Your task to perform on an android device: install app "Microsoft Authenticator" Image 0: 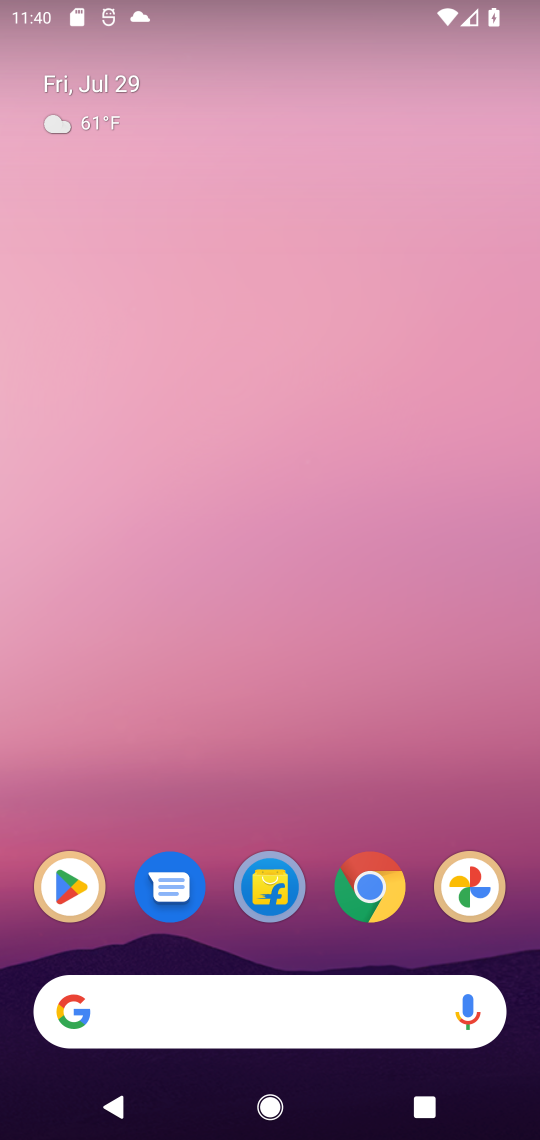
Step 0: drag from (224, 1009) to (334, 213)
Your task to perform on an android device: install app "Microsoft Authenticator" Image 1: 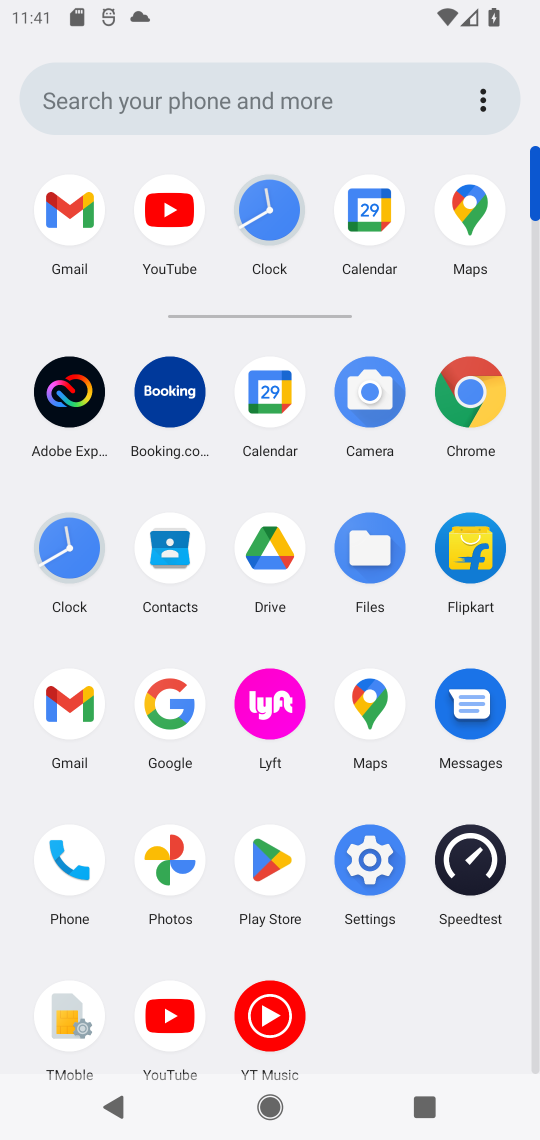
Step 1: click (272, 857)
Your task to perform on an android device: install app "Microsoft Authenticator" Image 2: 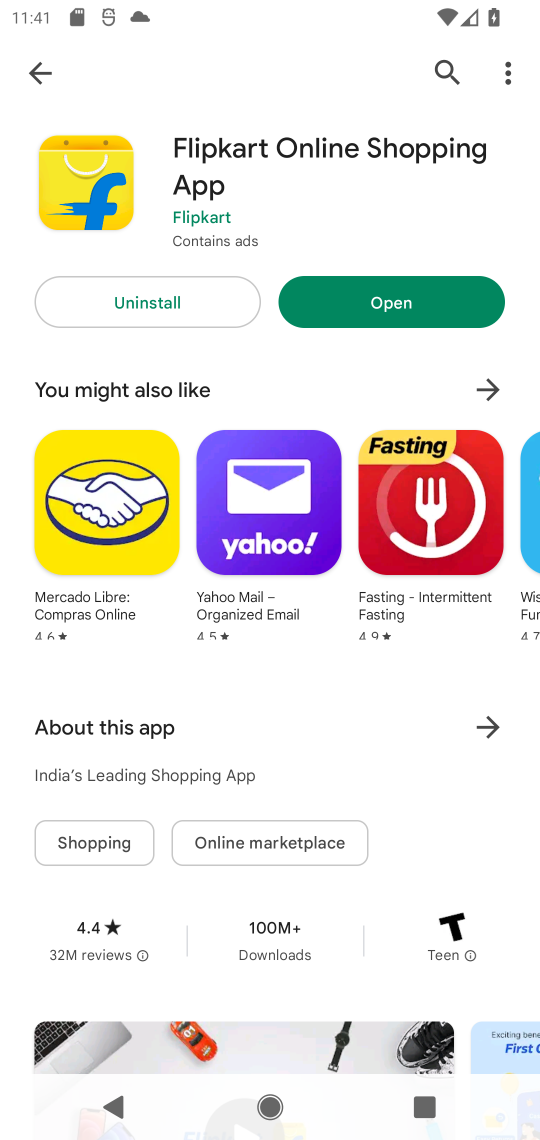
Step 2: click (441, 75)
Your task to perform on an android device: install app "Microsoft Authenticator" Image 3: 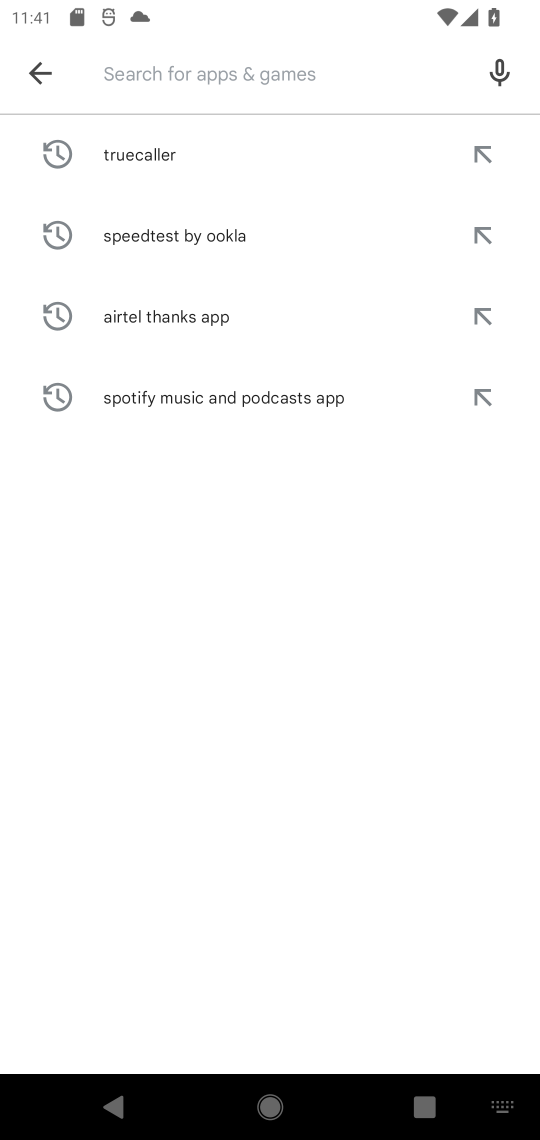
Step 3: click (180, 57)
Your task to perform on an android device: install app "Microsoft Authenticator" Image 4: 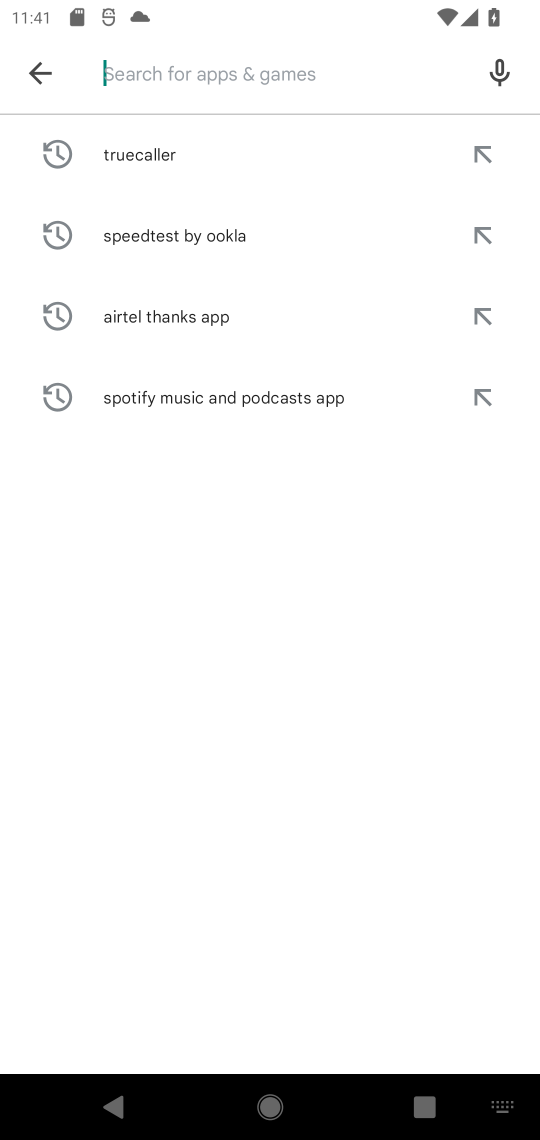
Step 4: type "Microsoft Authenticator"
Your task to perform on an android device: install app "Microsoft Authenticator" Image 5: 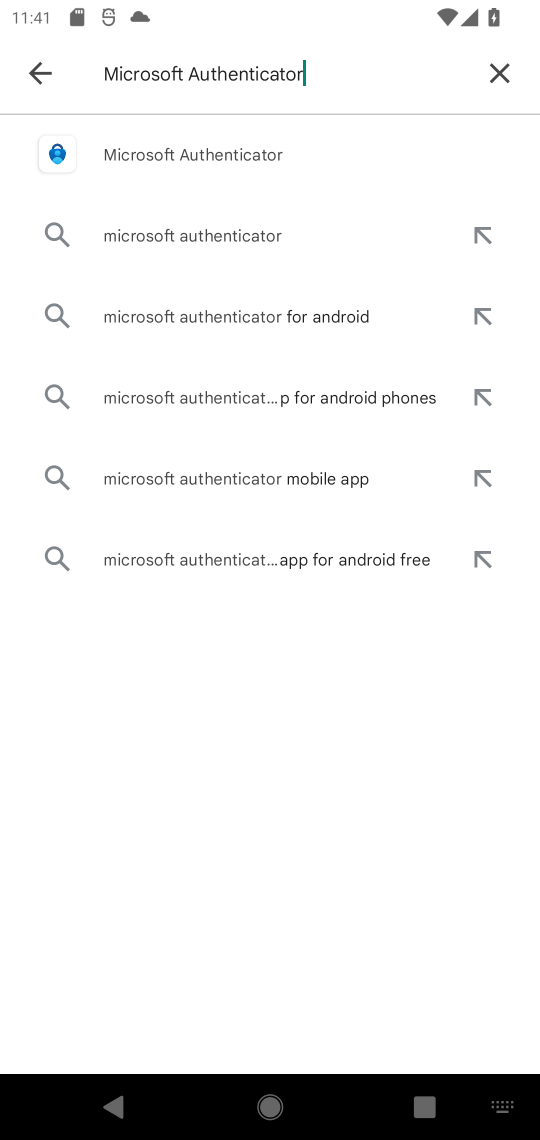
Step 5: click (205, 160)
Your task to perform on an android device: install app "Microsoft Authenticator" Image 6: 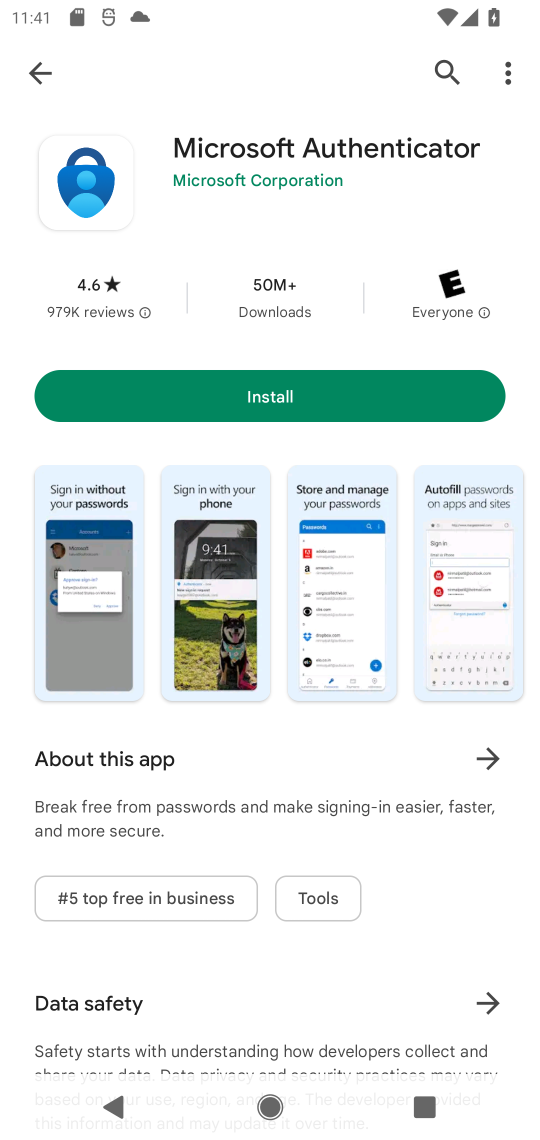
Step 6: click (288, 397)
Your task to perform on an android device: install app "Microsoft Authenticator" Image 7: 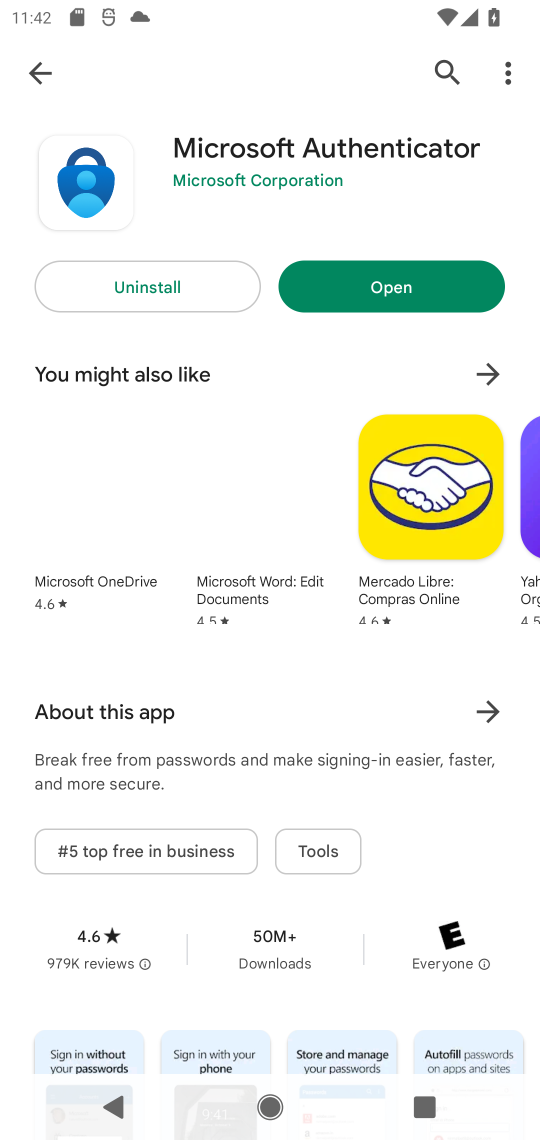
Step 7: task complete